Your task to perform on an android device: turn on wifi Image 0: 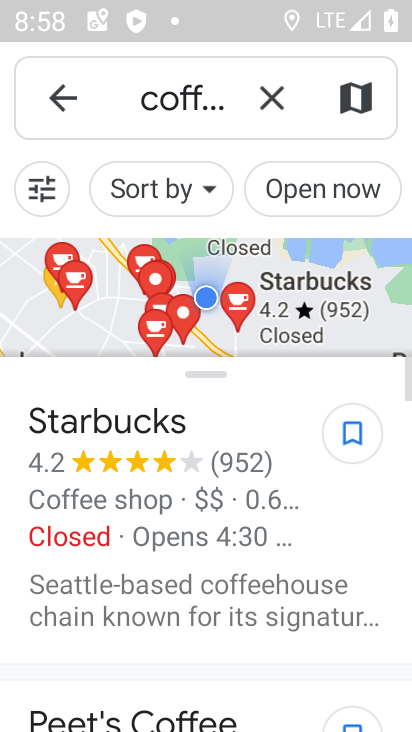
Step 0: press home button
Your task to perform on an android device: turn on wifi Image 1: 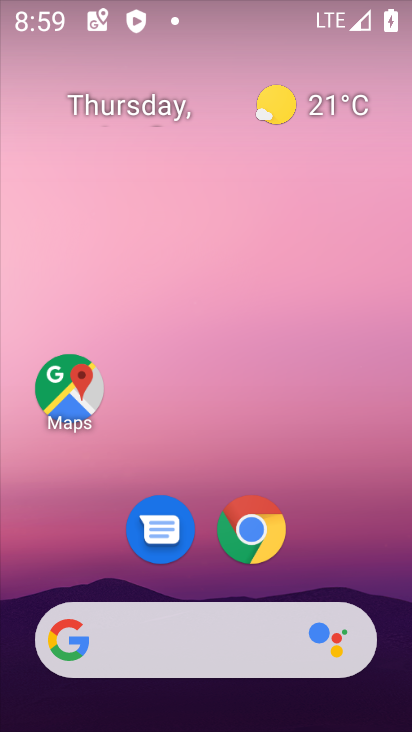
Step 1: drag from (219, 660) to (300, 248)
Your task to perform on an android device: turn on wifi Image 2: 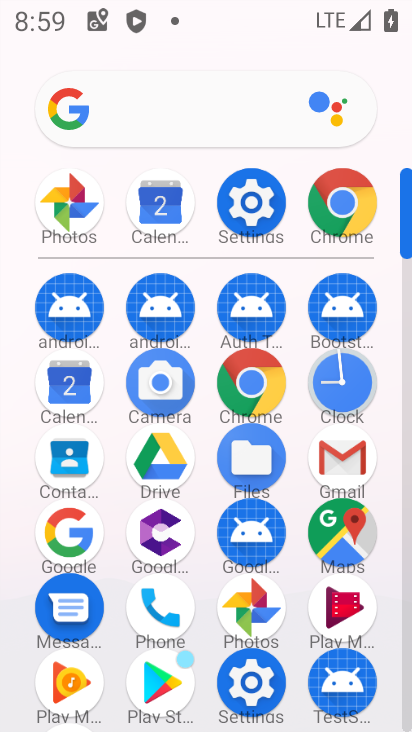
Step 2: click (250, 194)
Your task to perform on an android device: turn on wifi Image 3: 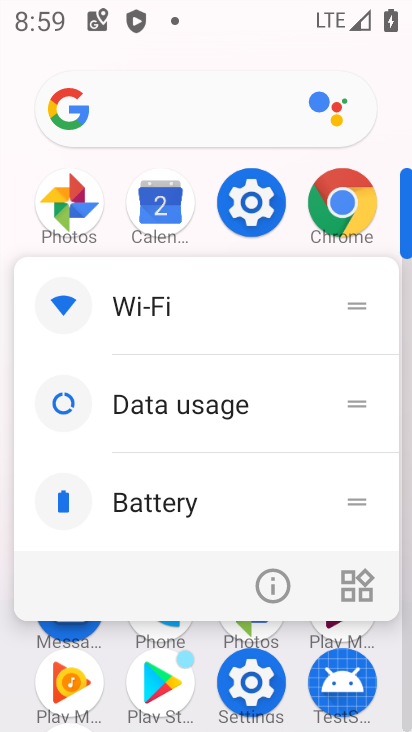
Step 3: click (247, 208)
Your task to perform on an android device: turn on wifi Image 4: 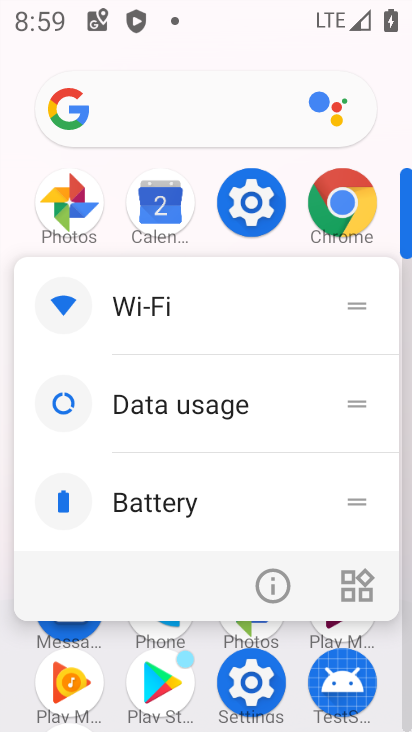
Step 4: click (247, 208)
Your task to perform on an android device: turn on wifi Image 5: 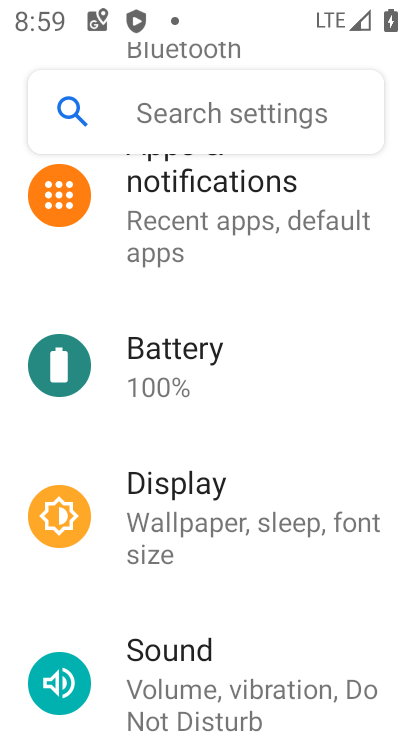
Step 5: drag from (304, 263) to (185, 726)
Your task to perform on an android device: turn on wifi Image 6: 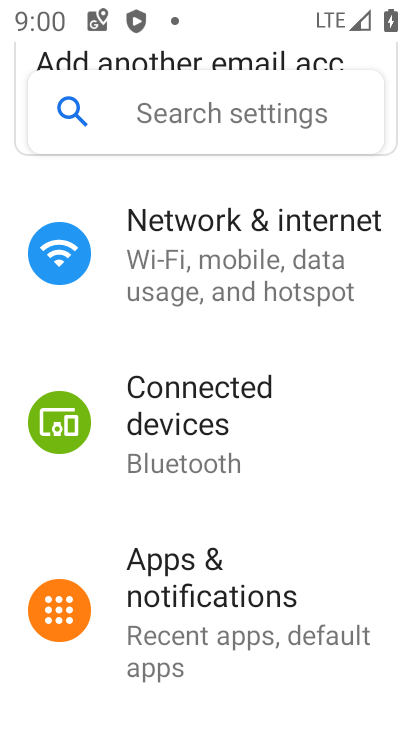
Step 6: click (270, 234)
Your task to perform on an android device: turn on wifi Image 7: 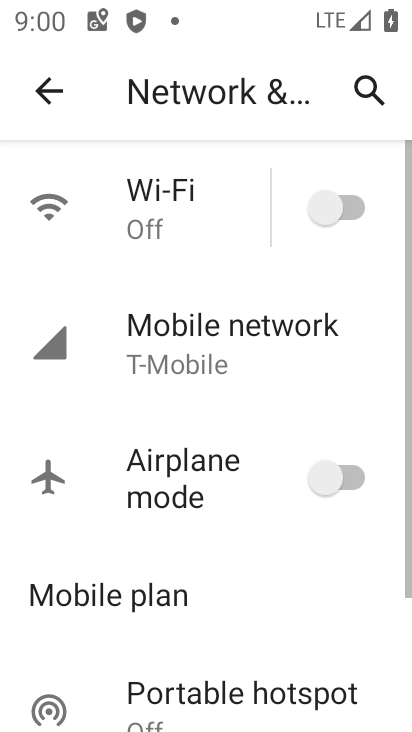
Step 7: click (331, 206)
Your task to perform on an android device: turn on wifi Image 8: 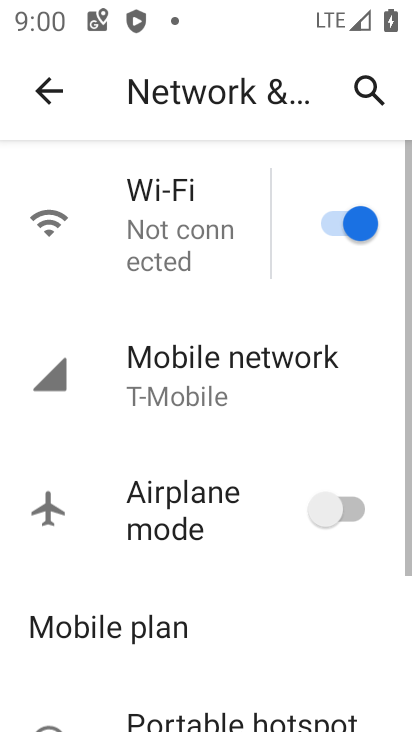
Step 8: task complete